Your task to perform on an android device: change timer sound Image 0: 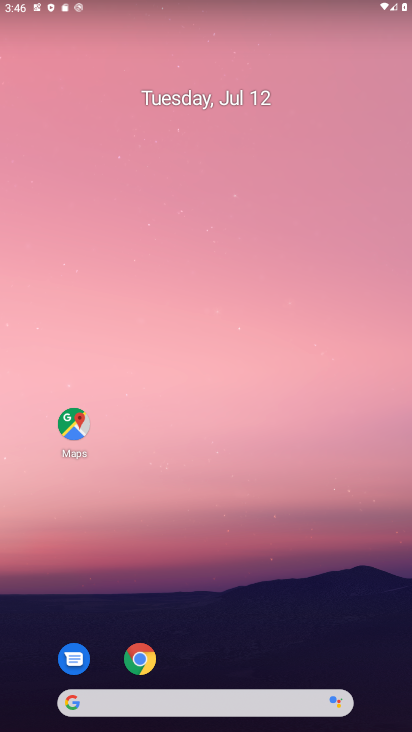
Step 0: drag from (199, 722) to (204, 178)
Your task to perform on an android device: change timer sound Image 1: 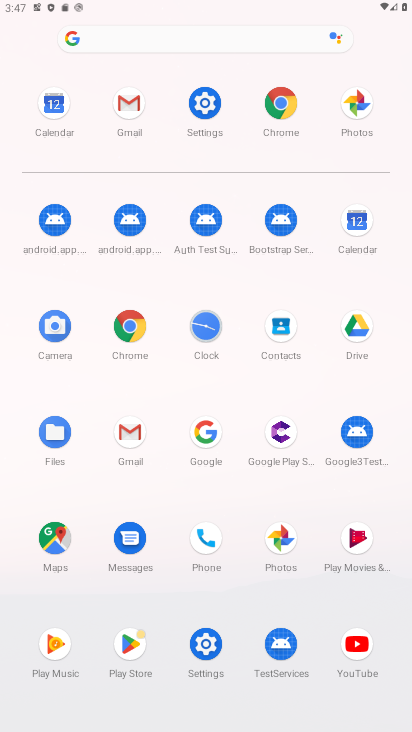
Step 1: click (213, 323)
Your task to perform on an android device: change timer sound Image 2: 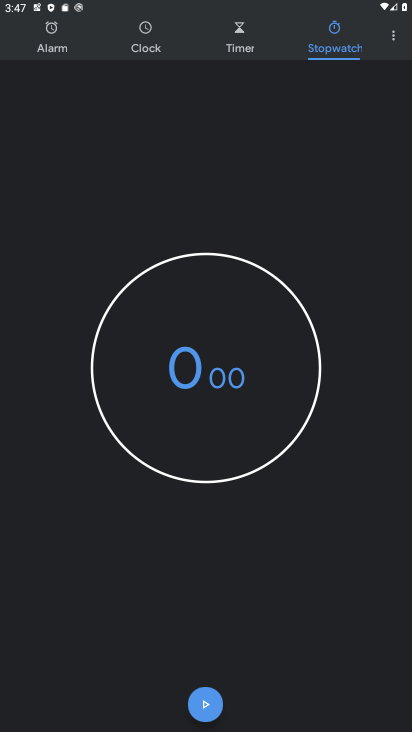
Step 2: click (394, 38)
Your task to perform on an android device: change timer sound Image 3: 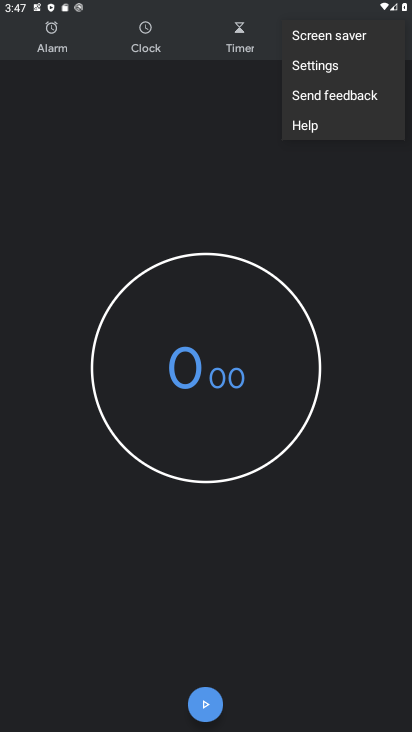
Step 3: click (312, 62)
Your task to perform on an android device: change timer sound Image 4: 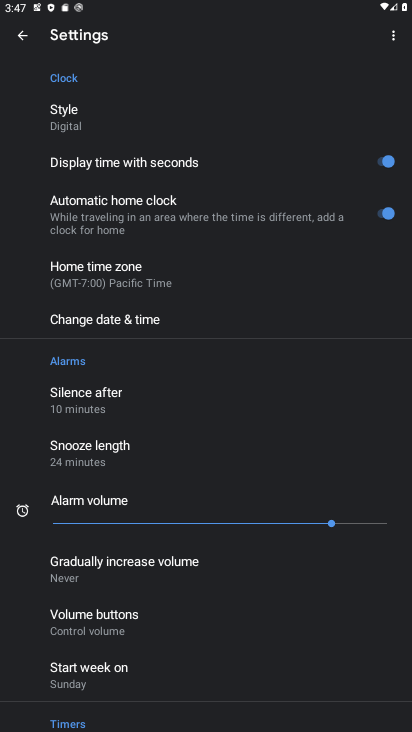
Step 4: drag from (187, 682) to (187, 309)
Your task to perform on an android device: change timer sound Image 5: 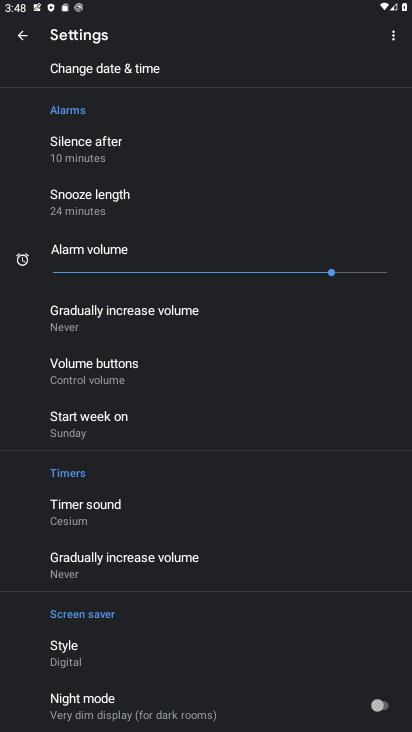
Step 5: click (84, 504)
Your task to perform on an android device: change timer sound Image 6: 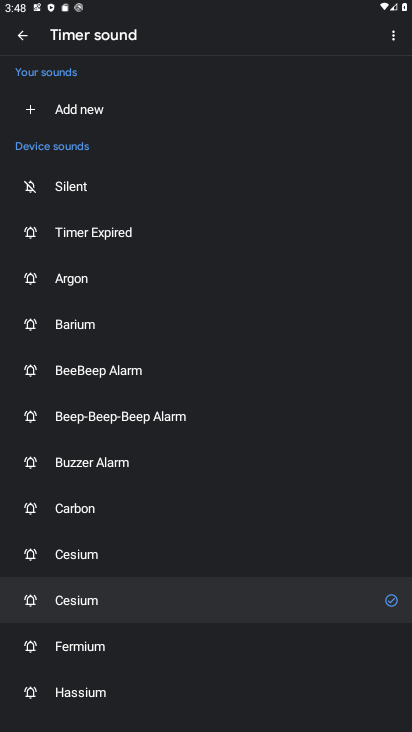
Step 6: click (78, 497)
Your task to perform on an android device: change timer sound Image 7: 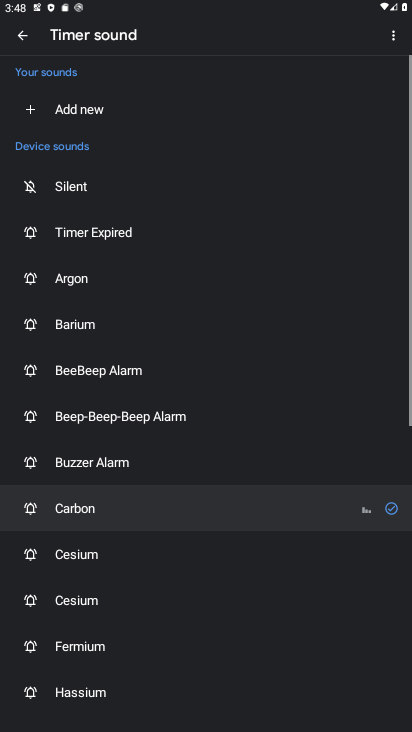
Step 7: task complete